Your task to perform on an android device: Go to Yahoo.com Image 0: 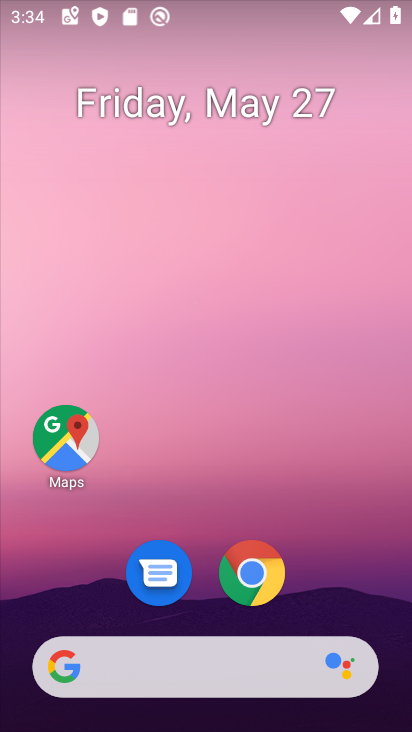
Step 0: click (258, 673)
Your task to perform on an android device: Go to Yahoo.com Image 1: 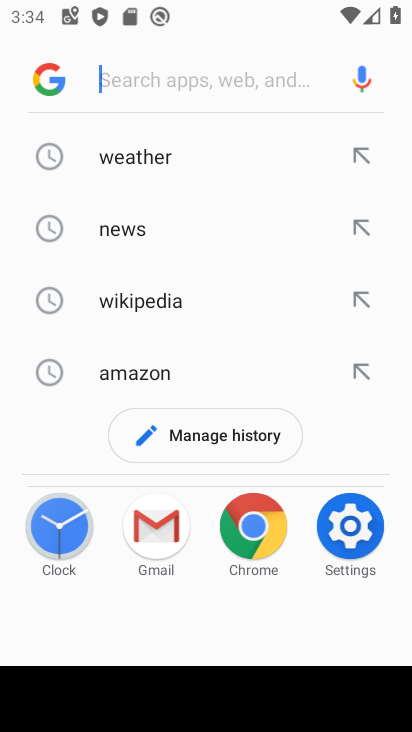
Step 1: type "yahoo.com"
Your task to perform on an android device: Go to Yahoo.com Image 2: 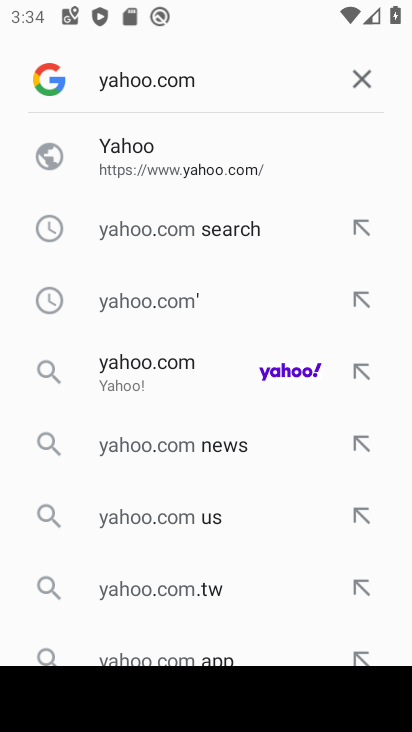
Step 2: click (172, 371)
Your task to perform on an android device: Go to Yahoo.com Image 3: 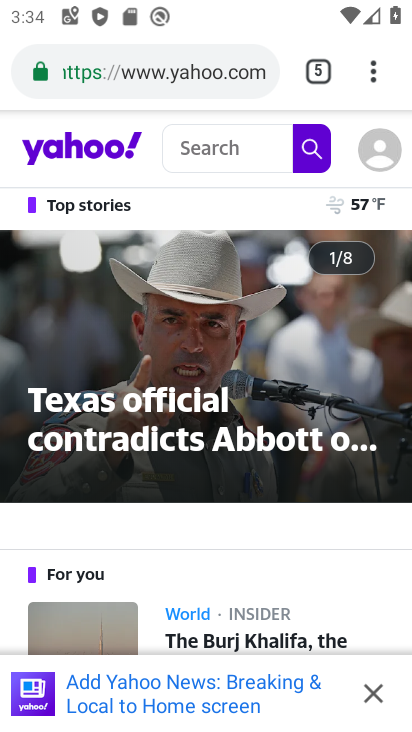
Step 3: task complete